Your task to perform on an android device: Open location settings Image 0: 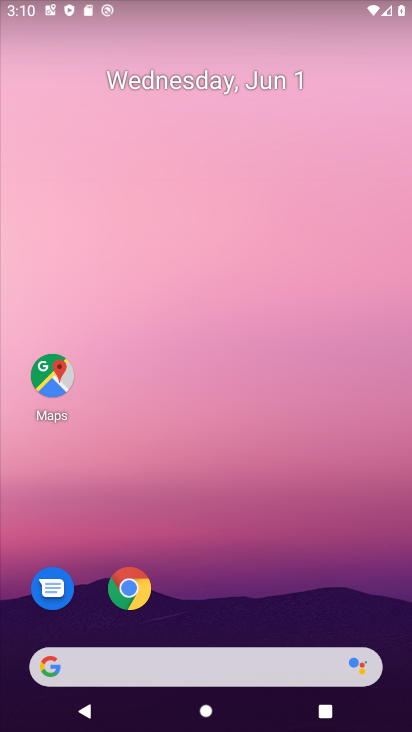
Step 0: drag from (299, 620) to (326, 150)
Your task to perform on an android device: Open location settings Image 1: 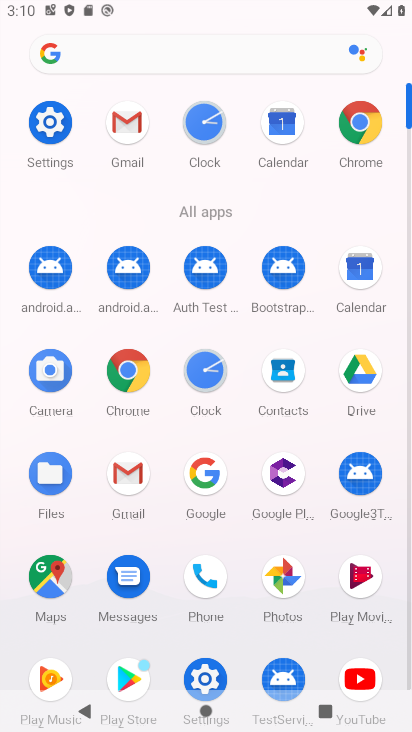
Step 1: click (45, 126)
Your task to perform on an android device: Open location settings Image 2: 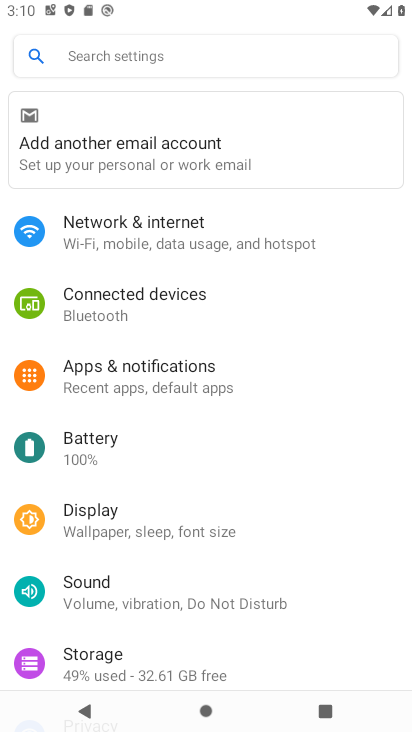
Step 2: drag from (242, 565) to (316, 108)
Your task to perform on an android device: Open location settings Image 3: 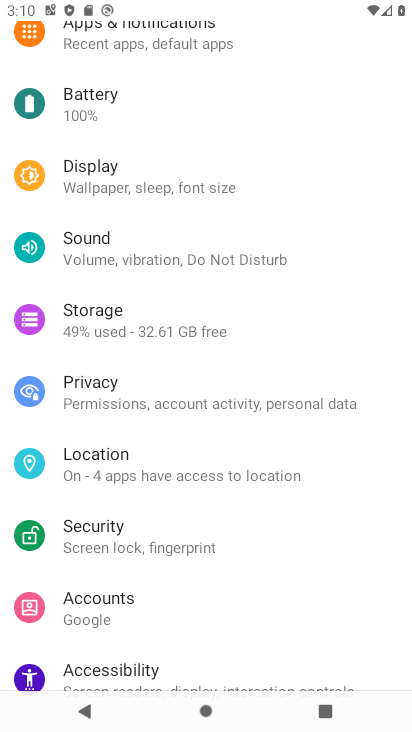
Step 3: click (110, 456)
Your task to perform on an android device: Open location settings Image 4: 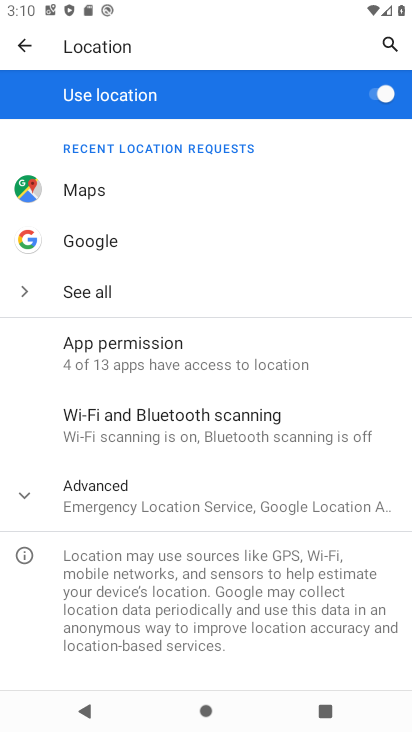
Step 4: task complete